Your task to perform on an android device: uninstall "Lyft - Rideshare, Bikes, Scooters & Transit" Image 0: 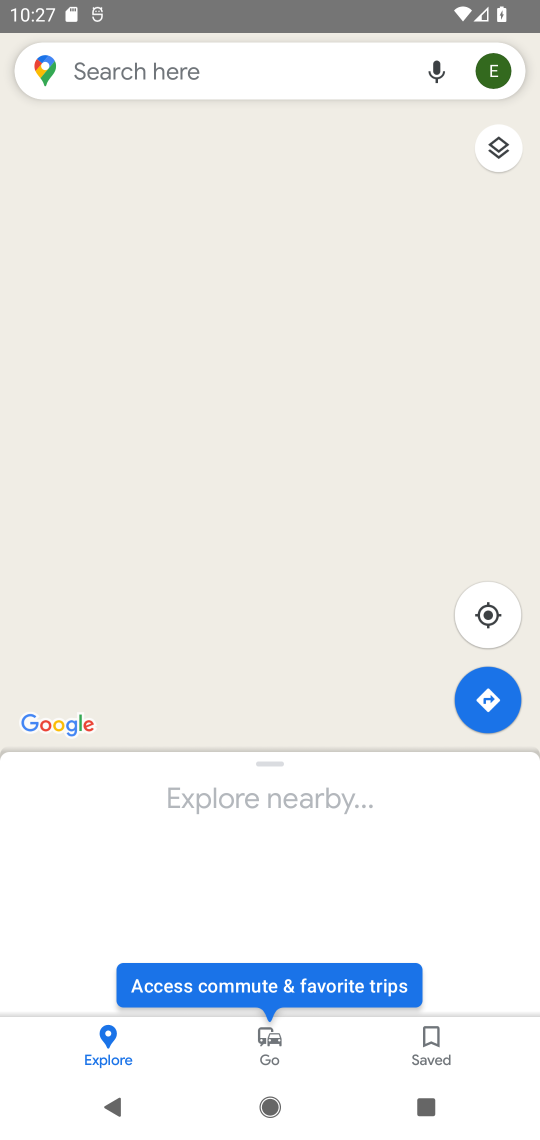
Step 0: press home button
Your task to perform on an android device: uninstall "Lyft - Rideshare, Bikes, Scooters & Transit" Image 1: 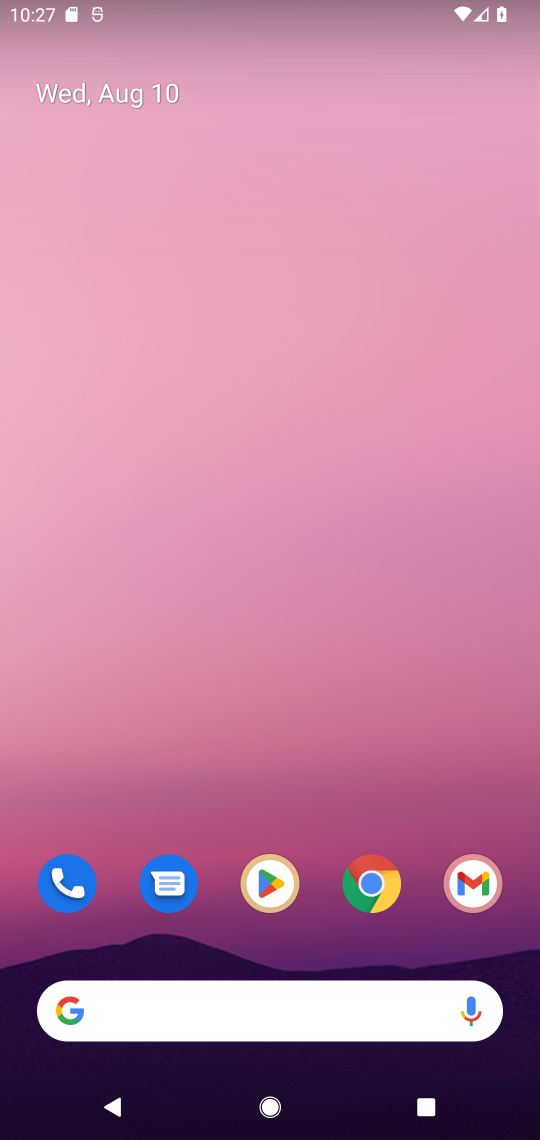
Step 1: click (264, 892)
Your task to perform on an android device: uninstall "Lyft - Rideshare, Bikes, Scooters & Transit" Image 2: 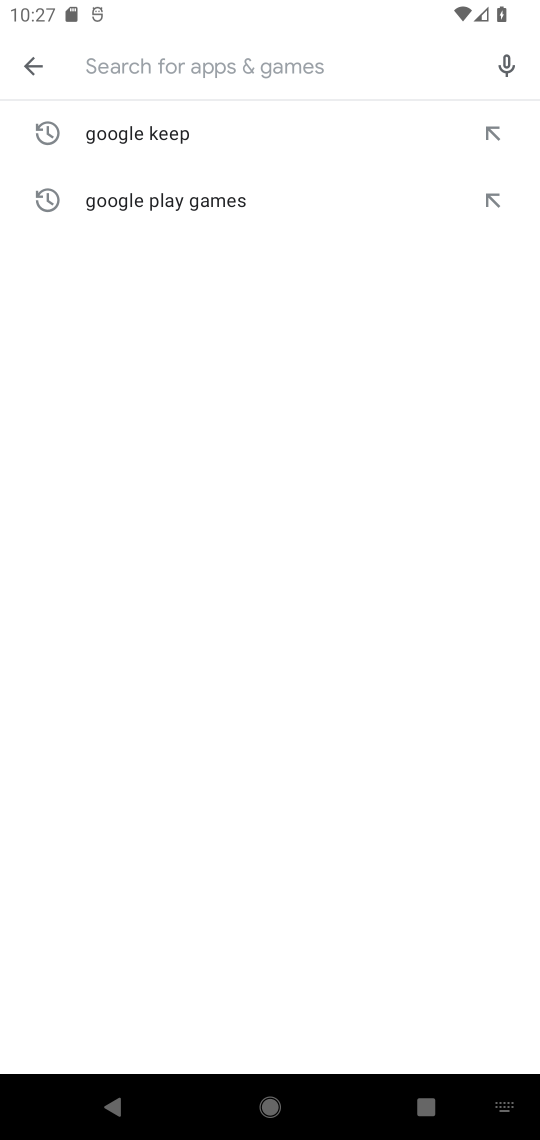
Step 2: type "Lyft - Rideshare, Bikes, Scooters & Transit"
Your task to perform on an android device: uninstall "Lyft - Rideshare, Bikes, Scooters & Transit" Image 3: 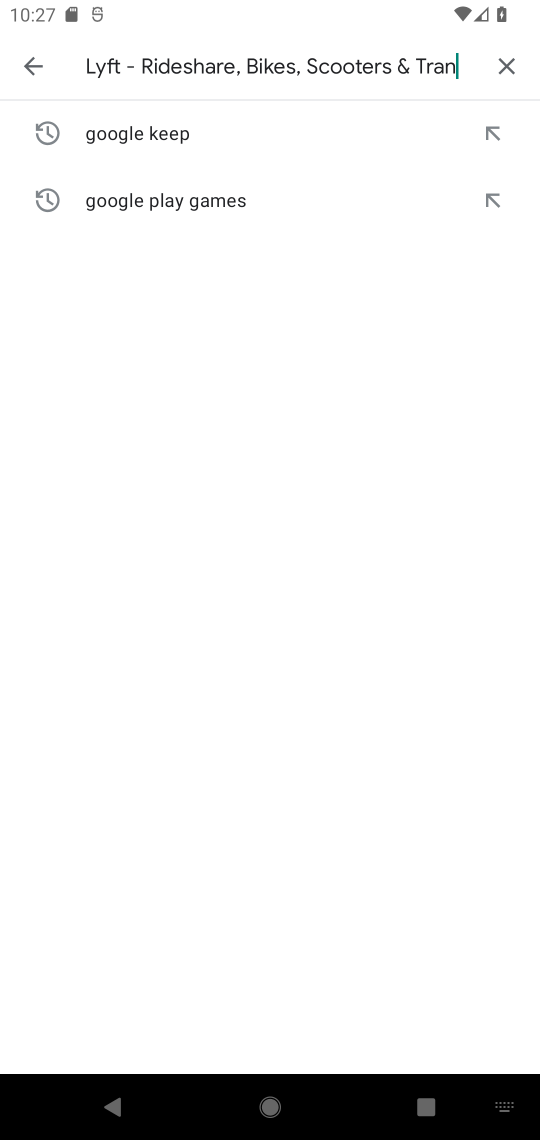
Step 3: type ""
Your task to perform on an android device: uninstall "Lyft - Rideshare, Bikes, Scooters & Transit" Image 4: 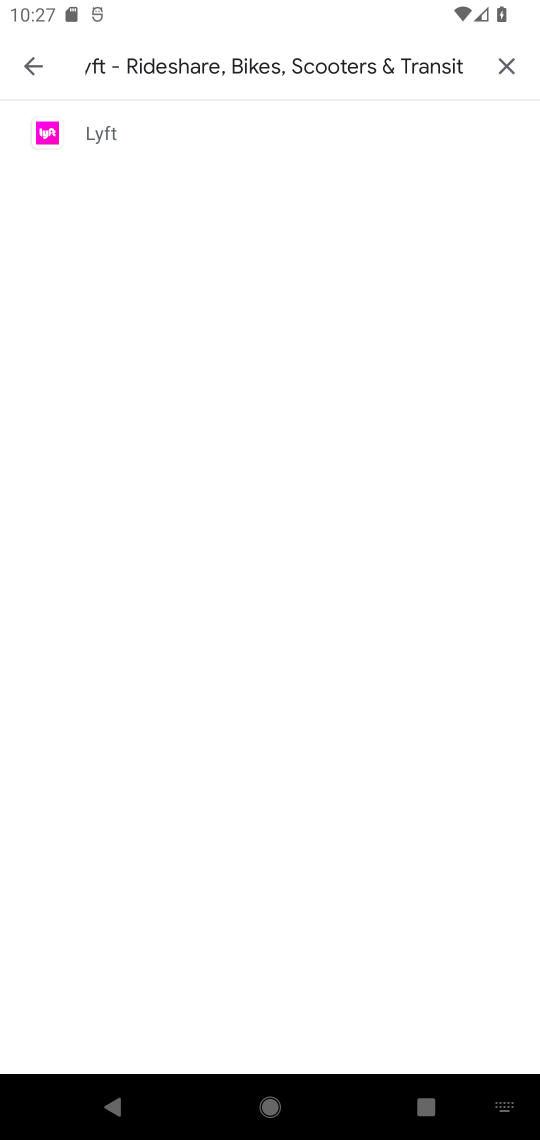
Step 4: click (106, 128)
Your task to perform on an android device: uninstall "Lyft - Rideshare, Bikes, Scooters & Transit" Image 5: 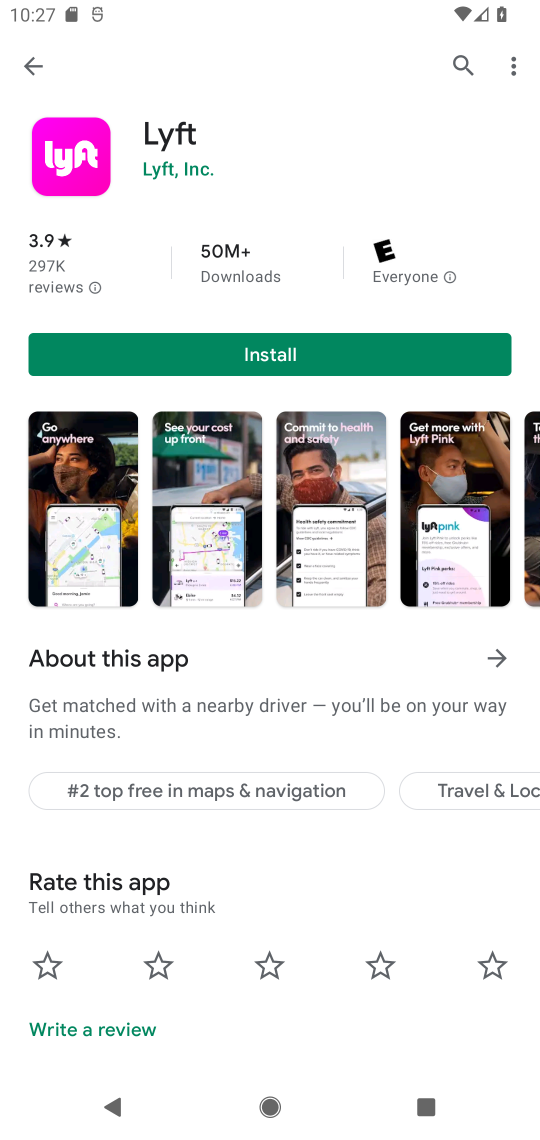
Step 5: task complete